Your task to perform on an android device: turn on bluetooth scan Image 0: 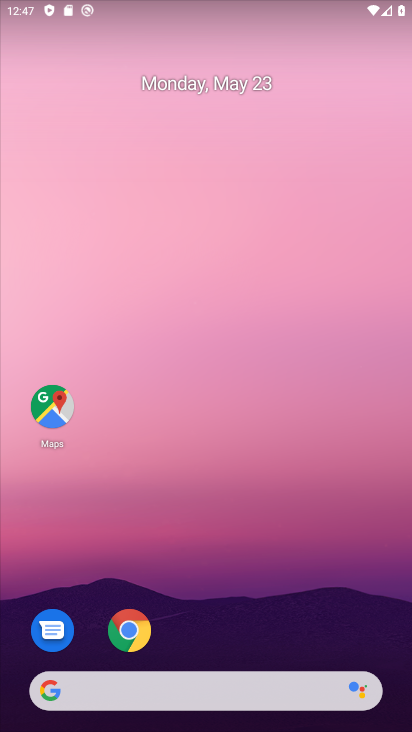
Step 0: drag from (247, 595) to (302, 207)
Your task to perform on an android device: turn on bluetooth scan Image 1: 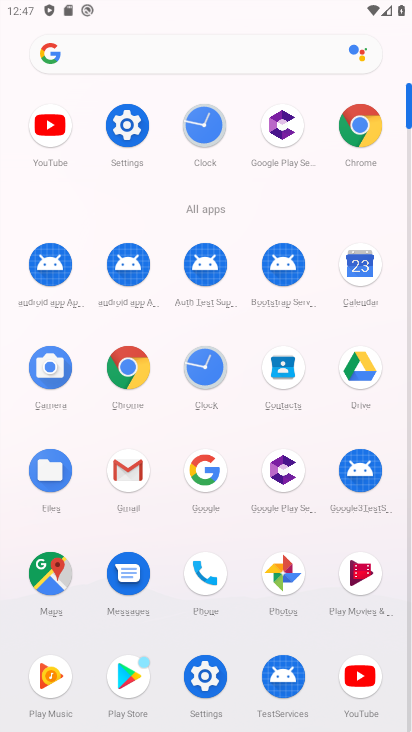
Step 1: click (133, 121)
Your task to perform on an android device: turn on bluetooth scan Image 2: 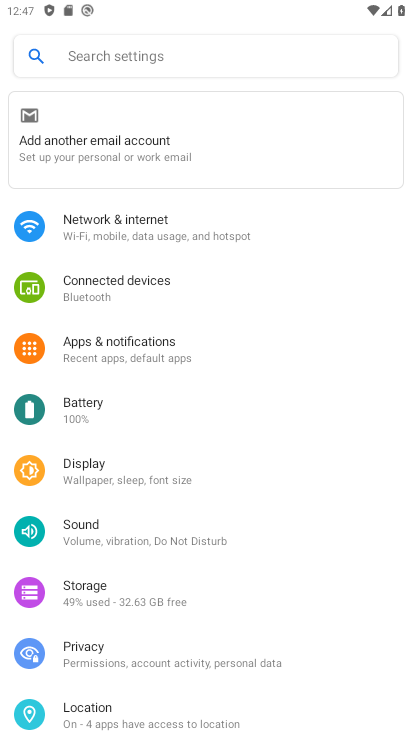
Step 2: click (113, 703)
Your task to perform on an android device: turn on bluetooth scan Image 3: 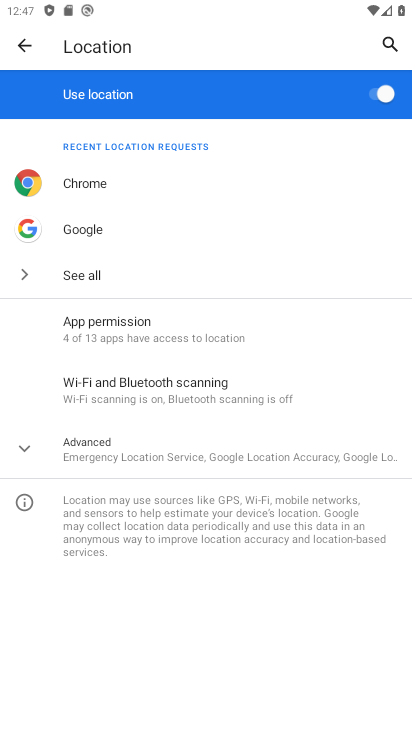
Step 3: click (148, 387)
Your task to perform on an android device: turn on bluetooth scan Image 4: 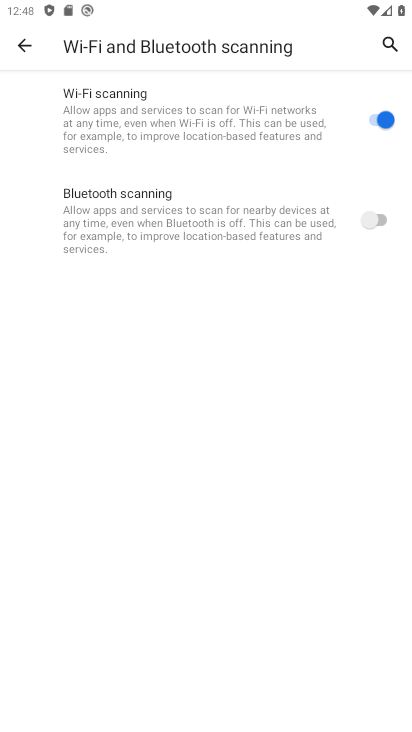
Step 4: click (383, 219)
Your task to perform on an android device: turn on bluetooth scan Image 5: 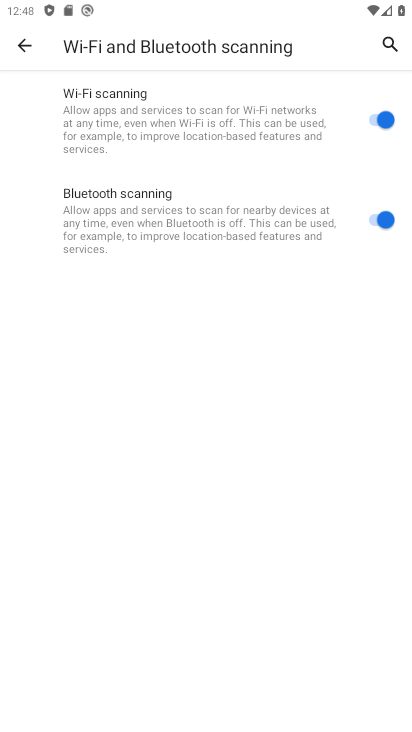
Step 5: task complete